Your task to perform on an android device: turn off improve location accuracy Image 0: 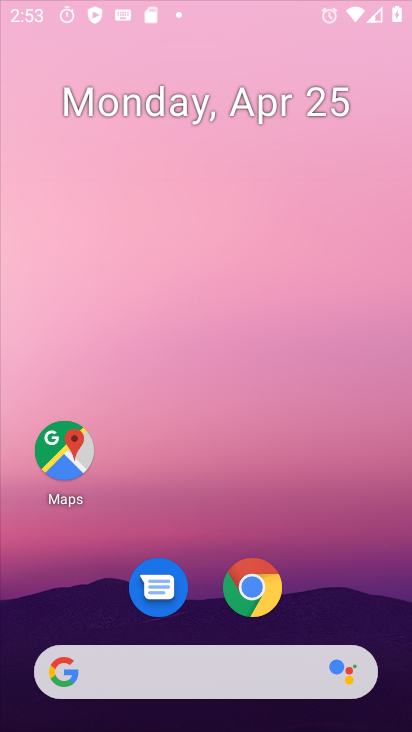
Step 0: click (298, 145)
Your task to perform on an android device: turn off improve location accuracy Image 1: 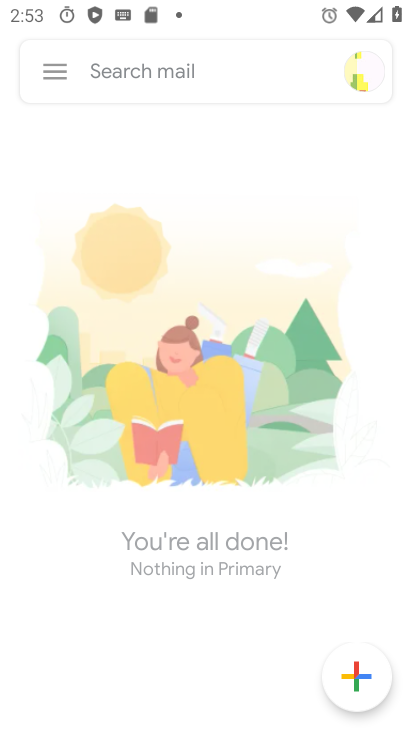
Step 1: press home button
Your task to perform on an android device: turn off improve location accuracy Image 2: 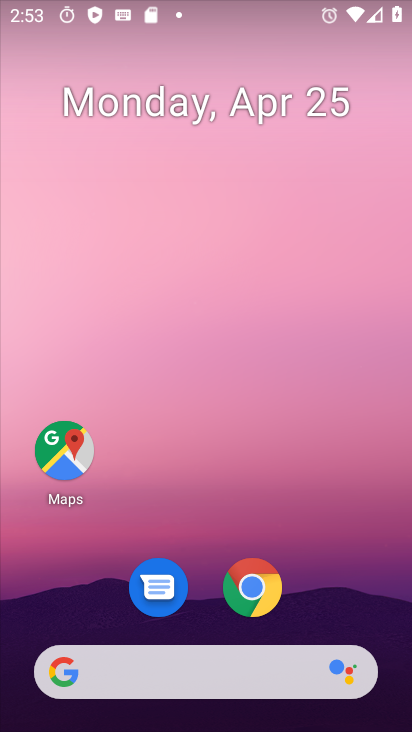
Step 2: drag from (364, 567) to (326, 121)
Your task to perform on an android device: turn off improve location accuracy Image 3: 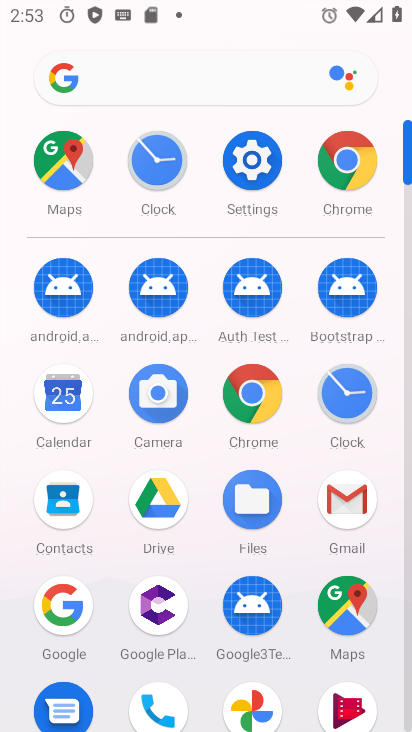
Step 3: click (246, 148)
Your task to perform on an android device: turn off improve location accuracy Image 4: 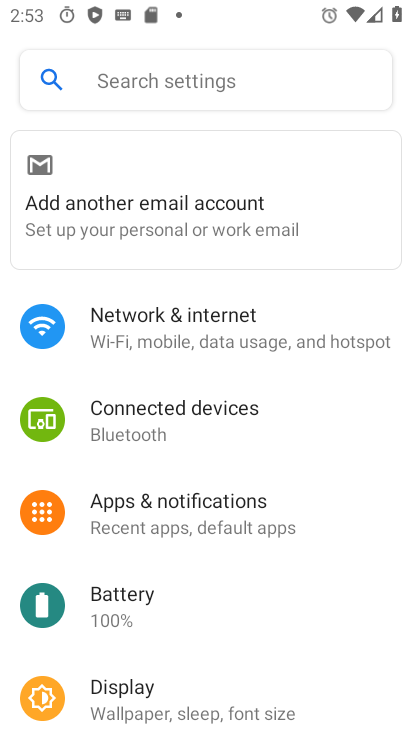
Step 4: drag from (224, 537) to (279, 182)
Your task to perform on an android device: turn off improve location accuracy Image 5: 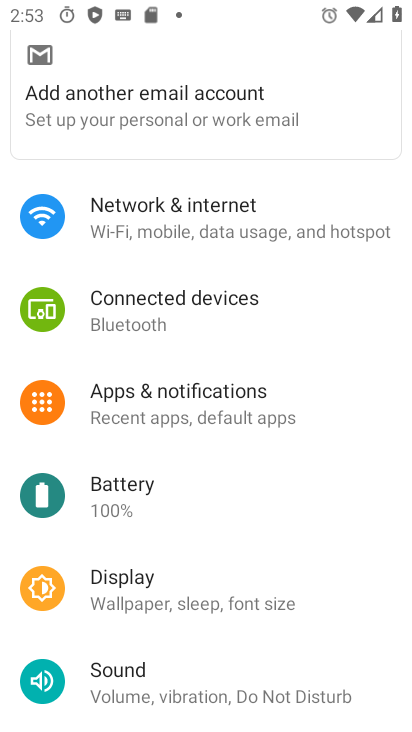
Step 5: drag from (255, 551) to (320, 137)
Your task to perform on an android device: turn off improve location accuracy Image 6: 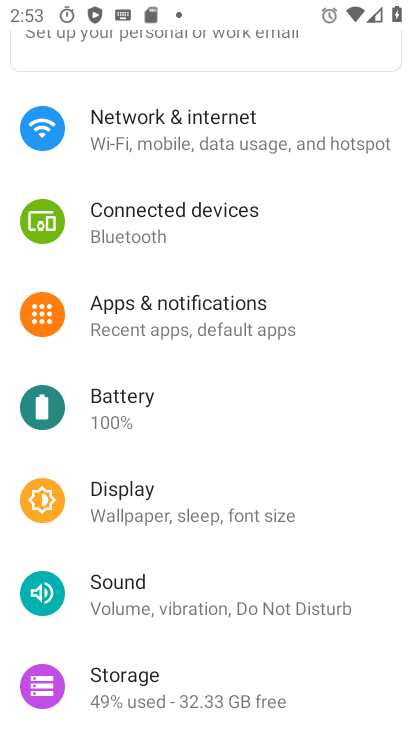
Step 6: drag from (151, 569) to (279, 115)
Your task to perform on an android device: turn off improve location accuracy Image 7: 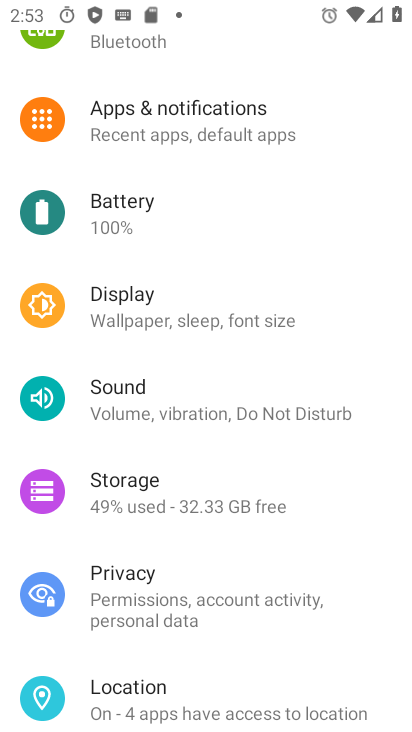
Step 7: drag from (261, 545) to (291, 107)
Your task to perform on an android device: turn off improve location accuracy Image 8: 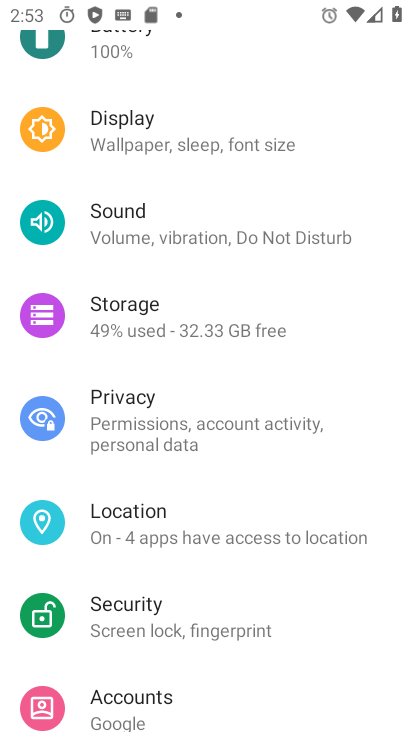
Step 8: drag from (230, 592) to (301, 156)
Your task to perform on an android device: turn off improve location accuracy Image 9: 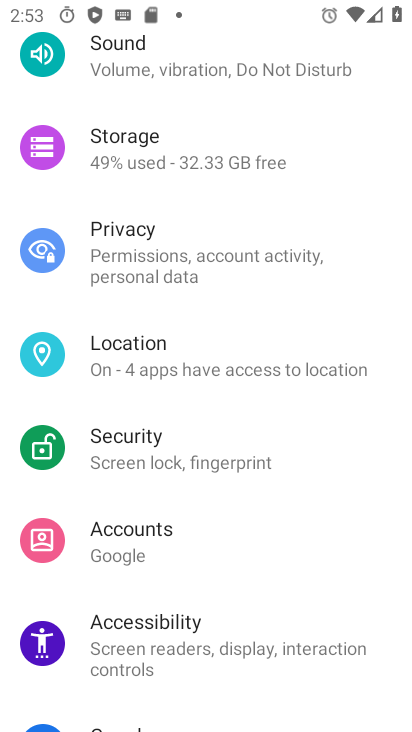
Step 9: drag from (254, 600) to (297, 130)
Your task to perform on an android device: turn off improve location accuracy Image 10: 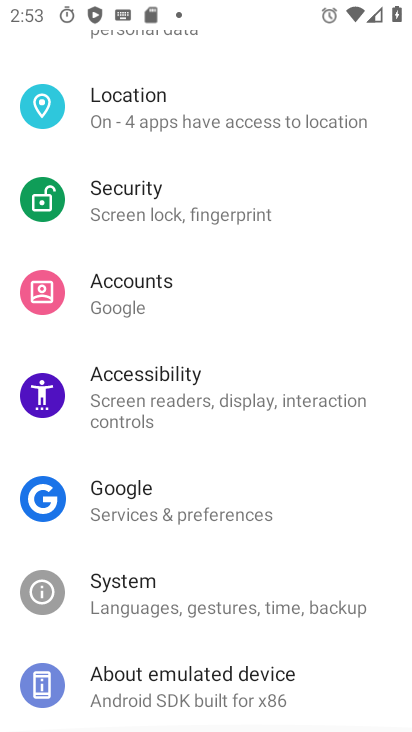
Step 10: drag from (233, 608) to (284, 198)
Your task to perform on an android device: turn off improve location accuracy Image 11: 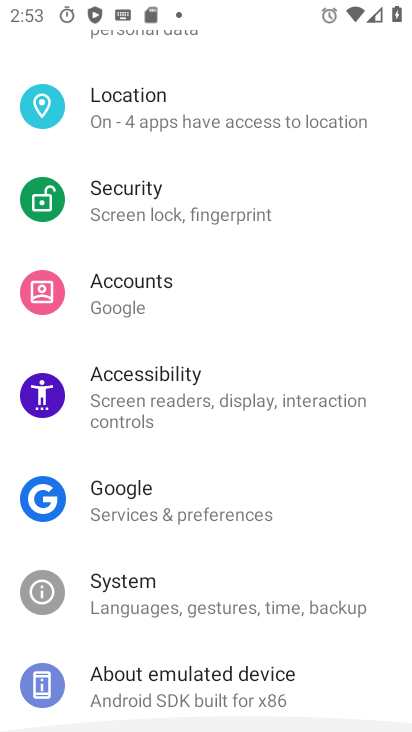
Step 11: drag from (252, 338) to (271, 661)
Your task to perform on an android device: turn off improve location accuracy Image 12: 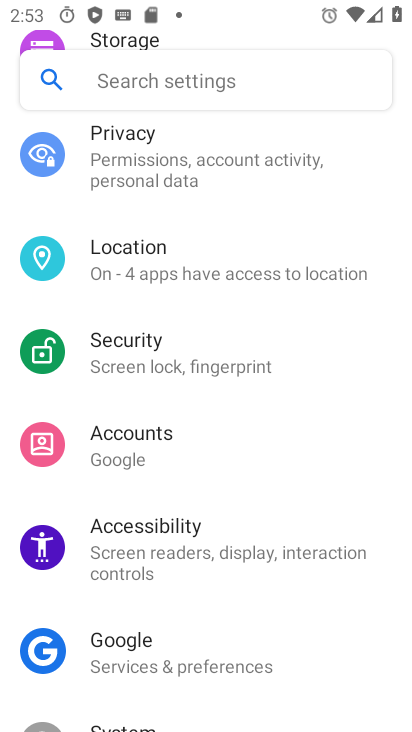
Step 12: drag from (260, 248) to (258, 604)
Your task to perform on an android device: turn off improve location accuracy Image 13: 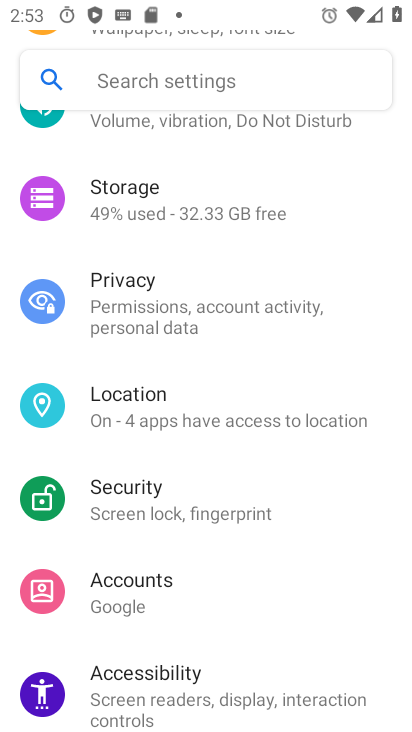
Step 13: drag from (277, 278) to (242, 568)
Your task to perform on an android device: turn off improve location accuracy Image 14: 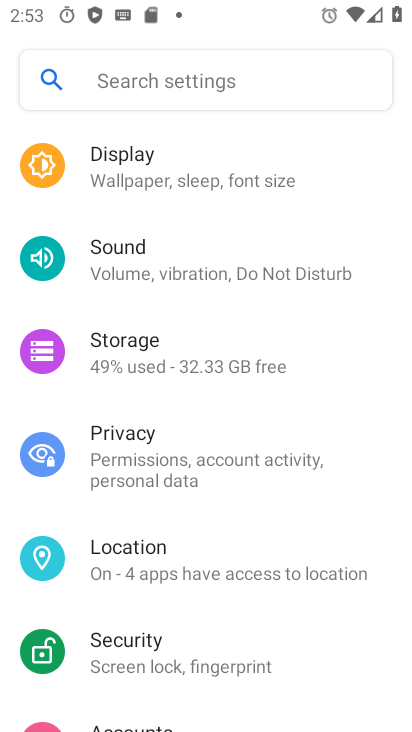
Step 14: drag from (257, 227) to (236, 557)
Your task to perform on an android device: turn off improve location accuracy Image 15: 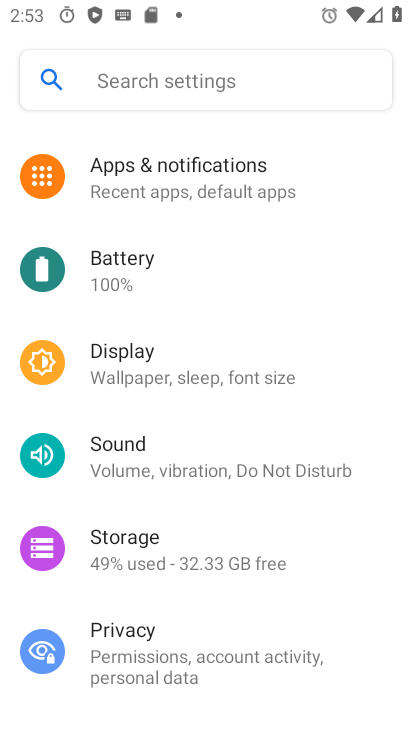
Step 15: drag from (197, 552) to (195, 724)
Your task to perform on an android device: turn off improve location accuracy Image 16: 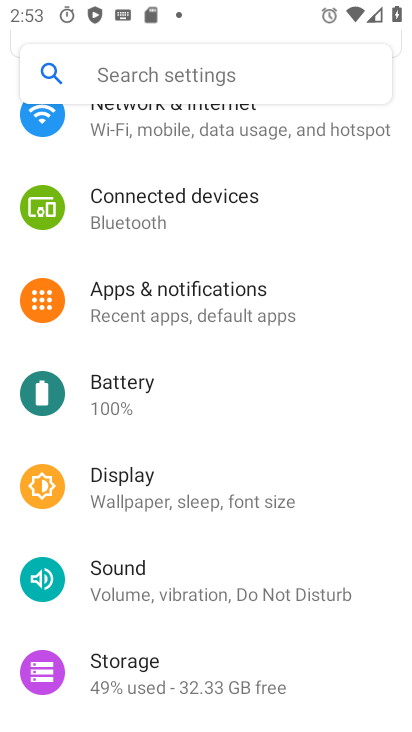
Step 16: drag from (190, 538) to (186, 214)
Your task to perform on an android device: turn off improve location accuracy Image 17: 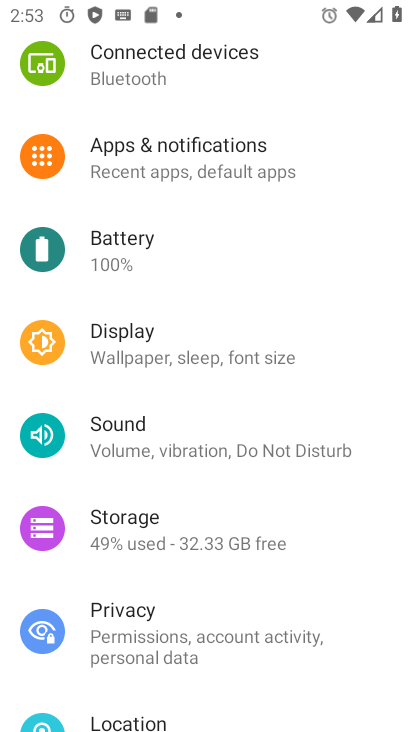
Step 17: drag from (186, 492) to (270, 191)
Your task to perform on an android device: turn off improve location accuracy Image 18: 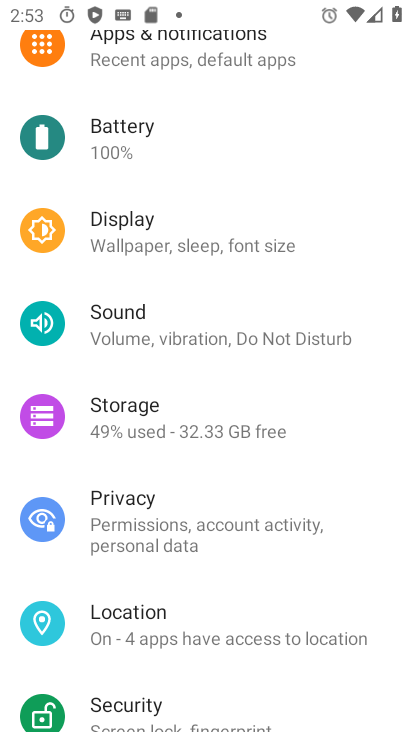
Step 18: click (153, 637)
Your task to perform on an android device: turn off improve location accuracy Image 19: 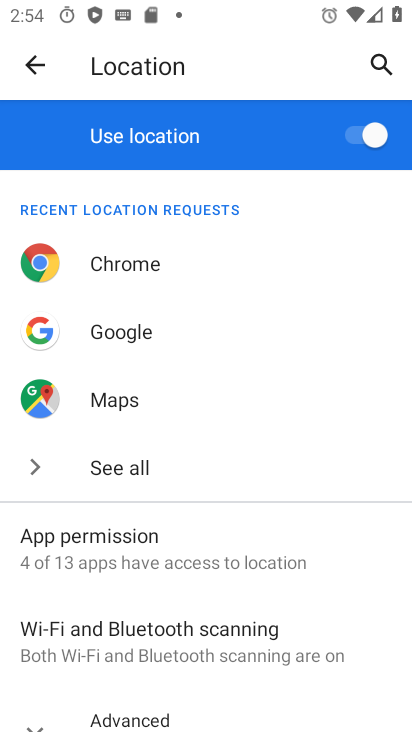
Step 19: drag from (310, 560) to (343, 153)
Your task to perform on an android device: turn off improve location accuracy Image 20: 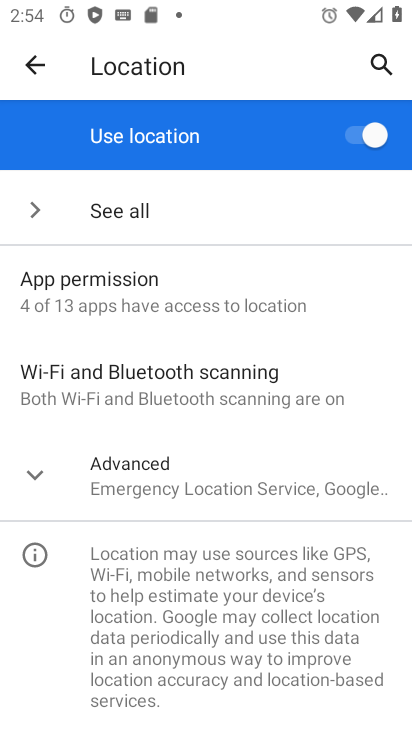
Step 20: click (232, 483)
Your task to perform on an android device: turn off improve location accuracy Image 21: 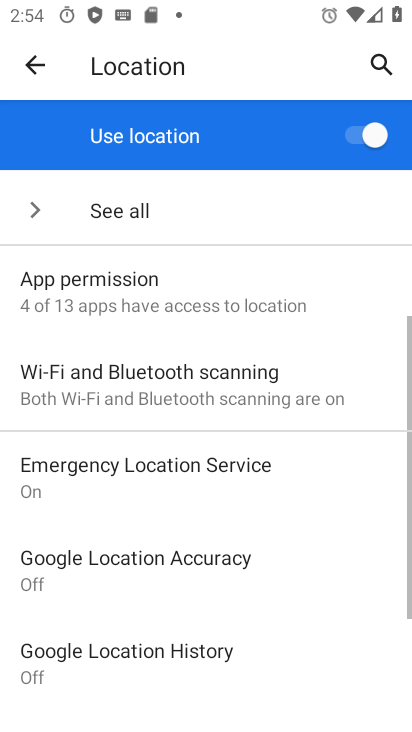
Step 21: task complete